Your task to perform on an android device: Show me popular videos on Youtube Image 0: 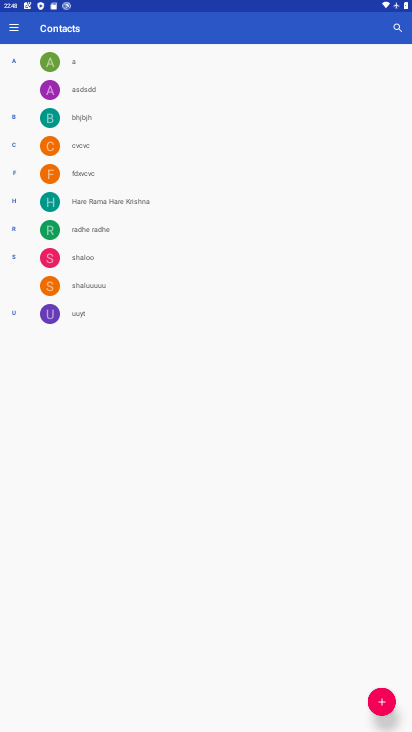
Step 0: press home button
Your task to perform on an android device: Show me popular videos on Youtube Image 1: 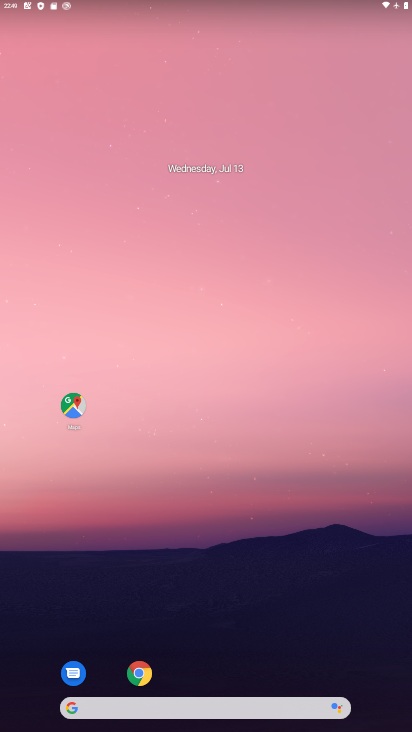
Step 1: drag from (221, 649) to (201, 231)
Your task to perform on an android device: Show me popular videos on Youtube Image 2: 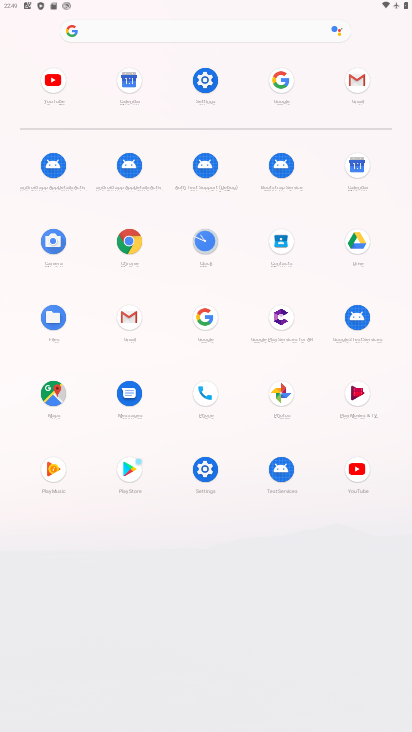
Step 2: click (359, 458)
Your task to perform on an android device: Show me popular videos on Youtube Image 3: 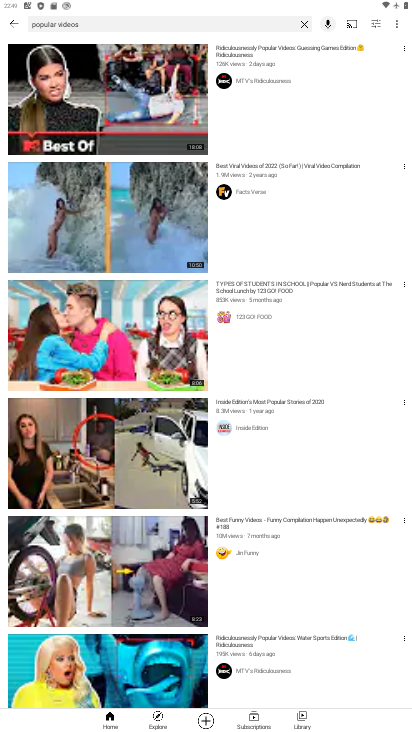
Step 3: task complete